Your task to perform on an android device: turn off translation in the chrome app Image 0: 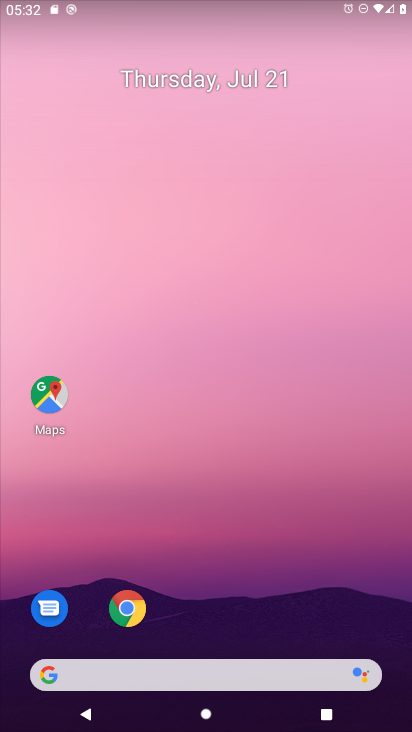
Step 0: drag from (261, 675) to (369, 71)
Your task to perform on an android device: turn off translation in the chrome app Image 1: 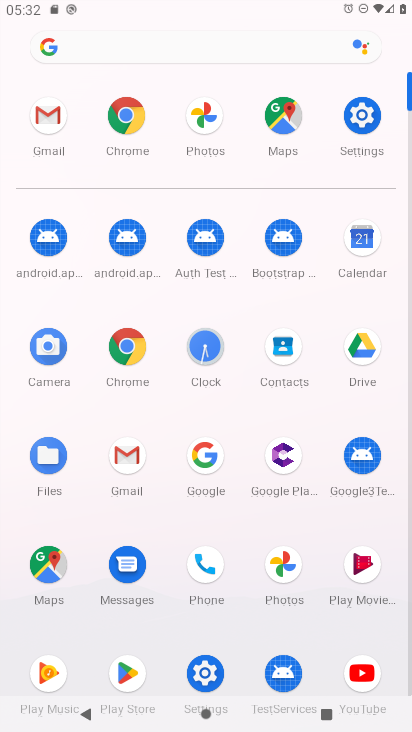
Step 1: click (135, 341)
Your task to perform on an android device: turn off translation in the chrome app Image 2: 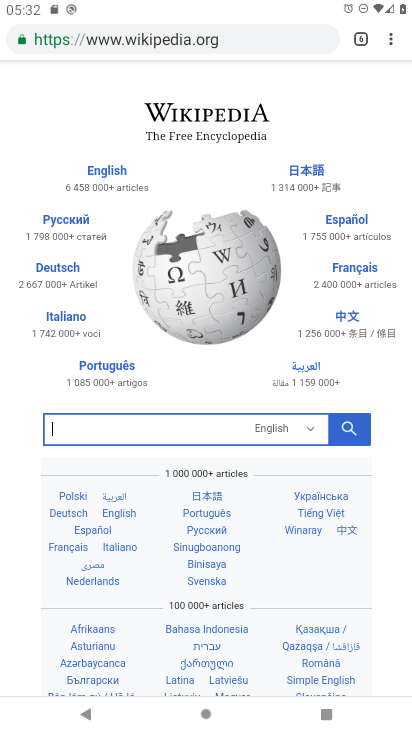
Step 2: drag from (393, 34) to (269, 475)
Your task to perform on an android device: turn off translation in the chrome app Image 3: 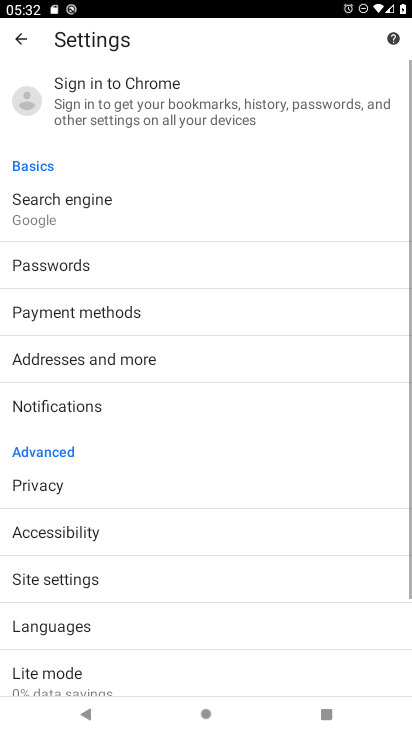
Step 3: click (84, 618)
Your task to perform on an android device: turn off translation in the chrome app Image 4: 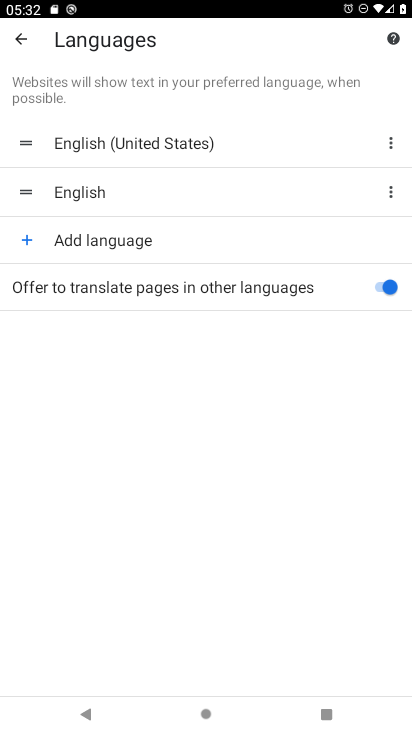
Step 4: click (392, 286)
Your task to perform on an android device: turn off translation in the chrome app Image 5: 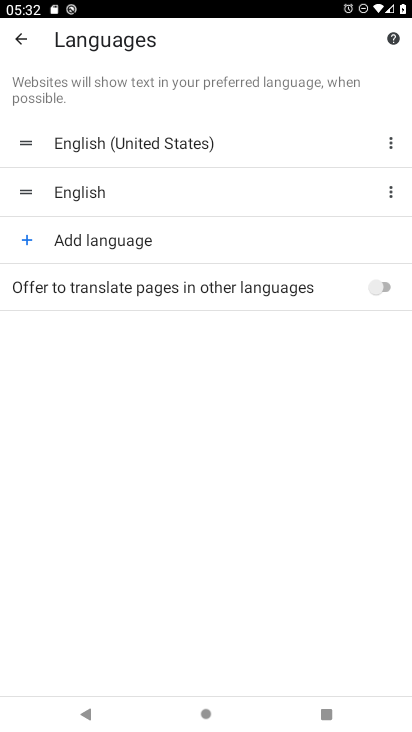
Step 5: task complete